Your task to perform on an android device: turn off priority inbox in the gmail app Image 0: 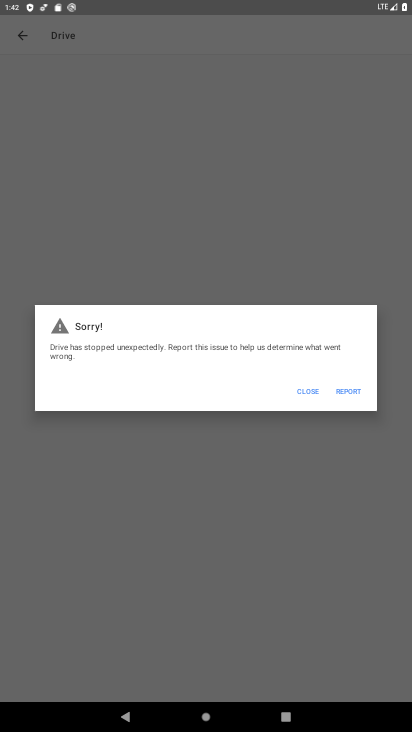
Step 0: press home button
Your task to perform on an android device: turn off priority inbox in the gmail app Image 1: 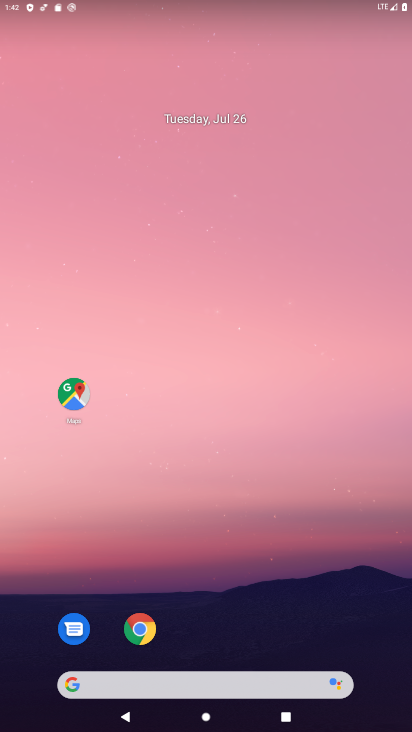
Step 1: drag from (388, 691) to (338, 147)
Your task to perform on an android device: turn off priority inbox in the gmail app Image 2: 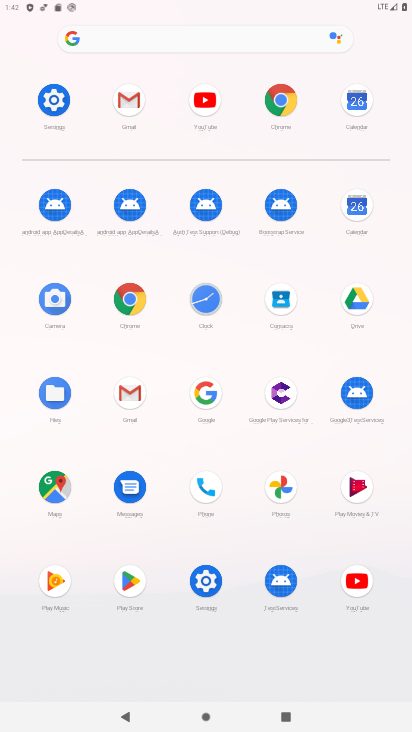
Step 2: click (124, 395)
Your task to perform on an android device: turn off priority inbox in the gmail app Image 3: 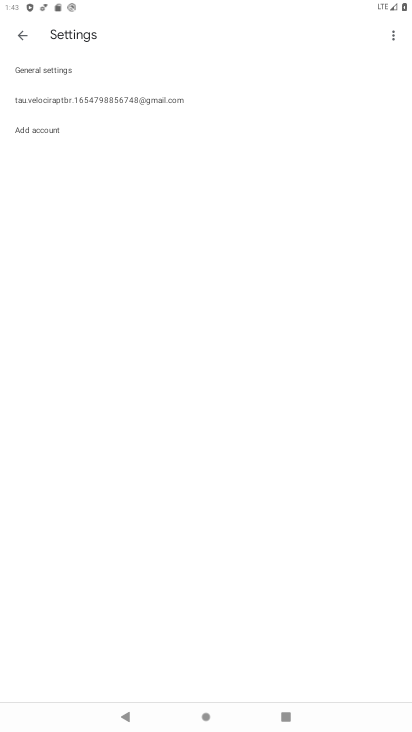
Step 3: click (69, 96)
Your task to perform on an android device: turn off priority inbox in the gmail app Image 4: 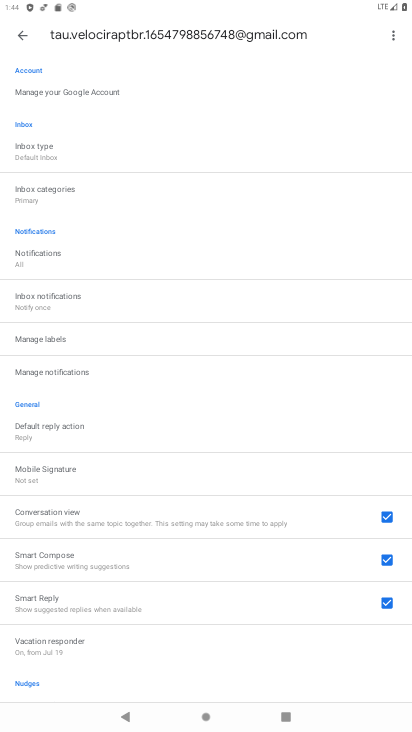
Step 4: task complete